Your task to perform on an android device: Go to settings Image 0: 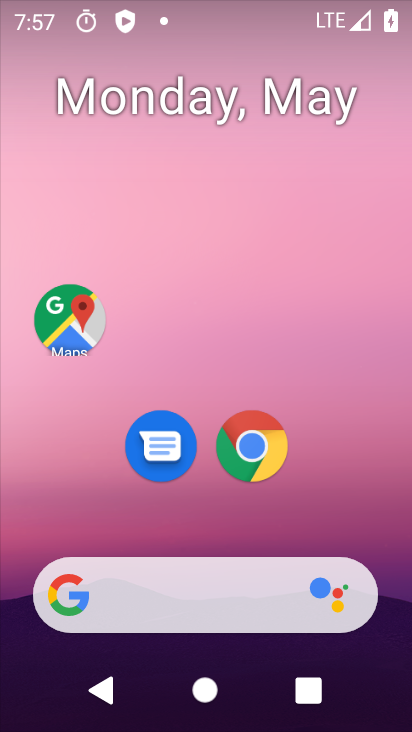
Step 0: drag from (336, 545) to (306, 6)
Your task to perform on an android device: Go to settings Image 1: 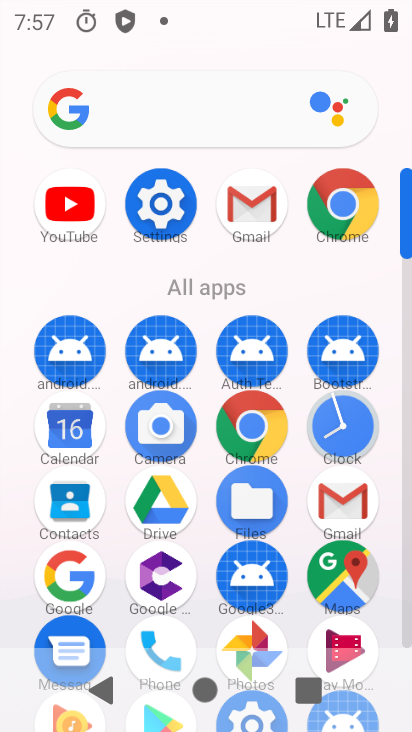
Step 1: click (166, 208)
Your task to perform on an android device: Go to settings Image 2: 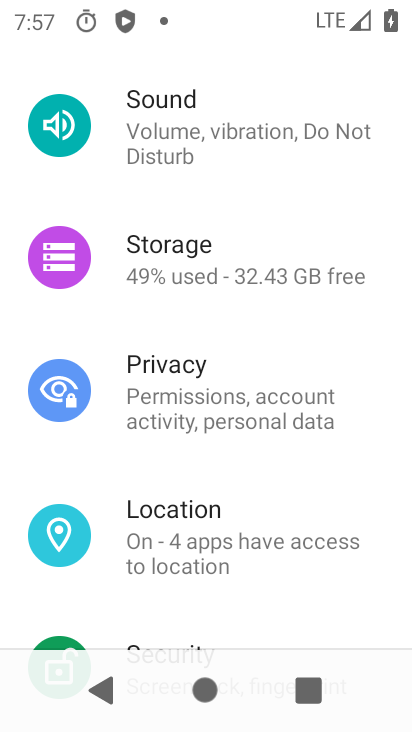
Step 2: task complete